Your task to perform on an android device: Search for the new lego star wars 2021 on Target Image 0: 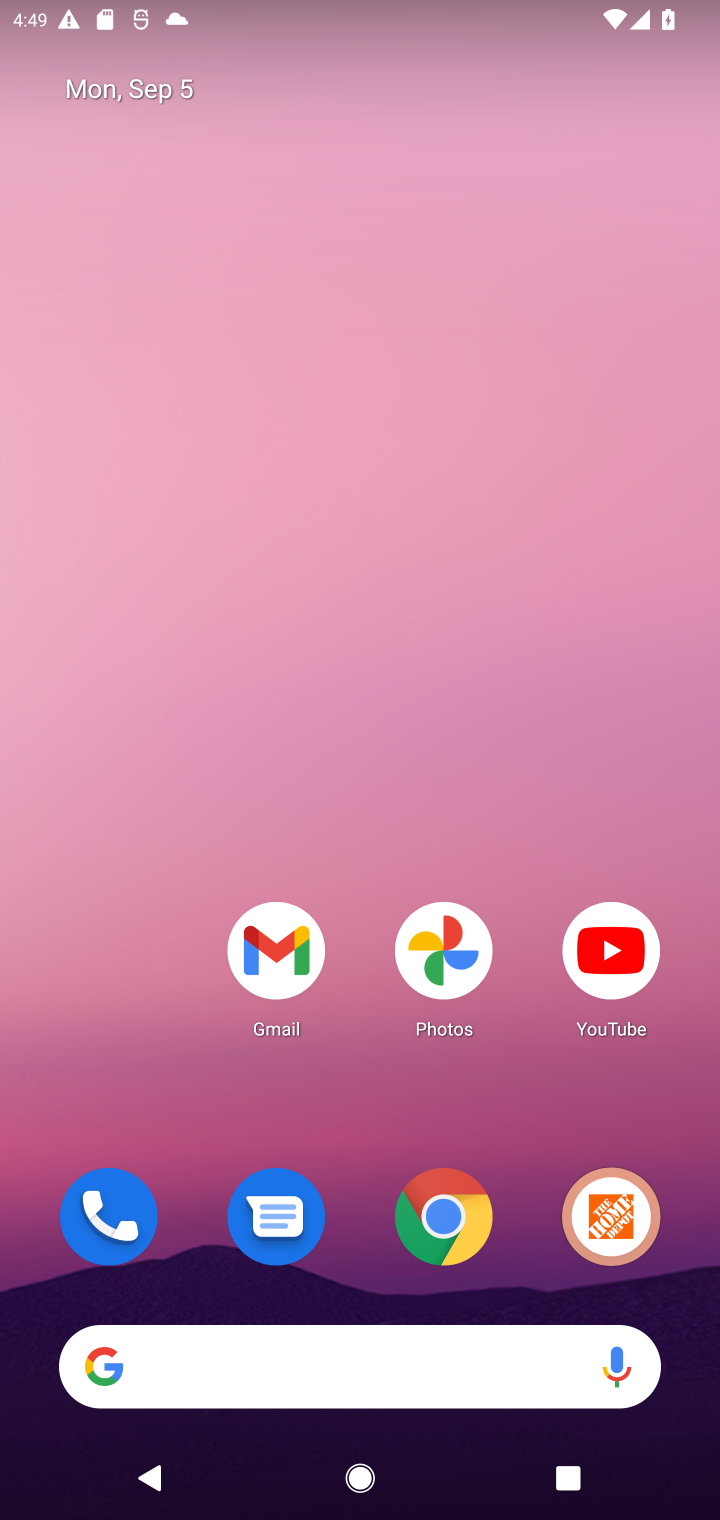
Step 0: click (110, 1358)
Your task to perform on an android device: Search for the new lego star wars 2021 on Target Image 1: 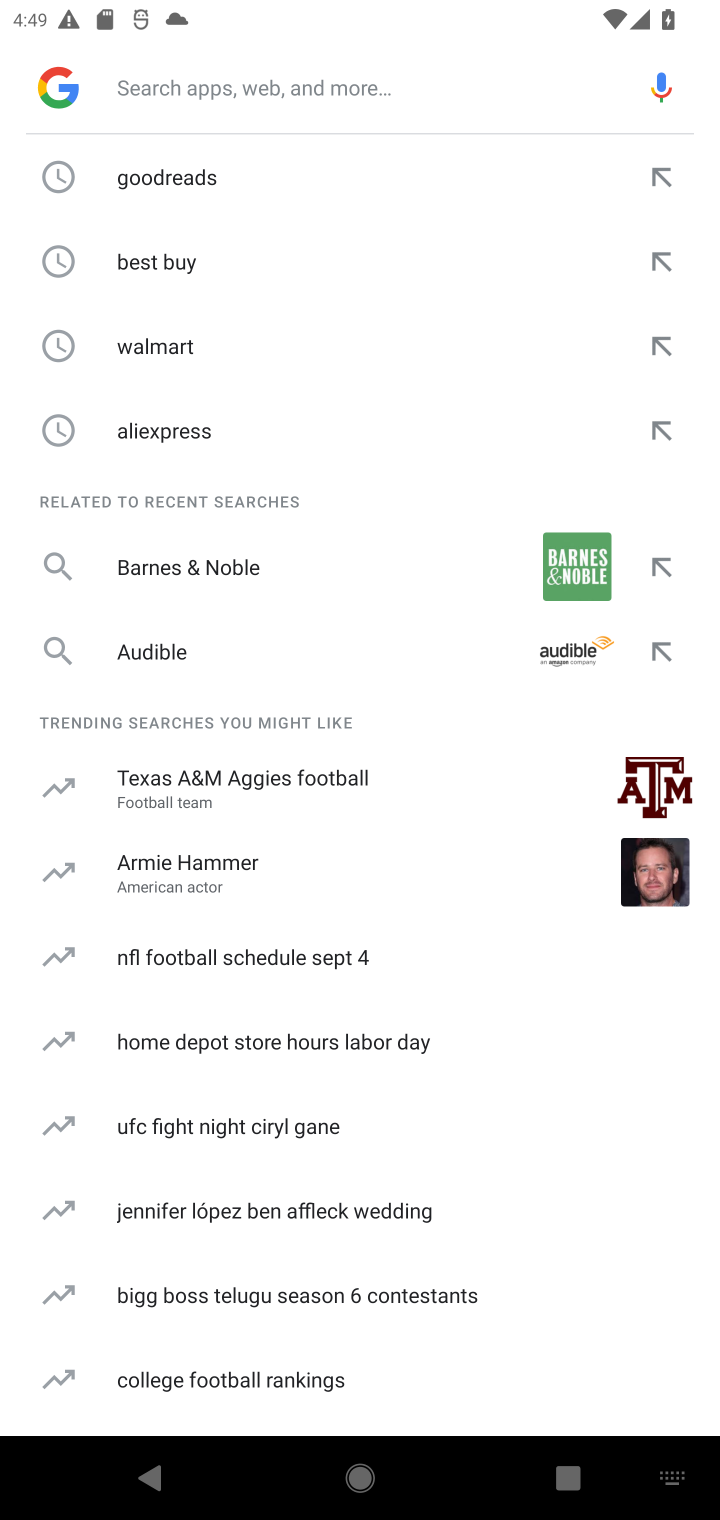
Step 1: click (378, 86)
Your task to perform on an android device: Search for the new lego star wars 2021 on Target Image 2: 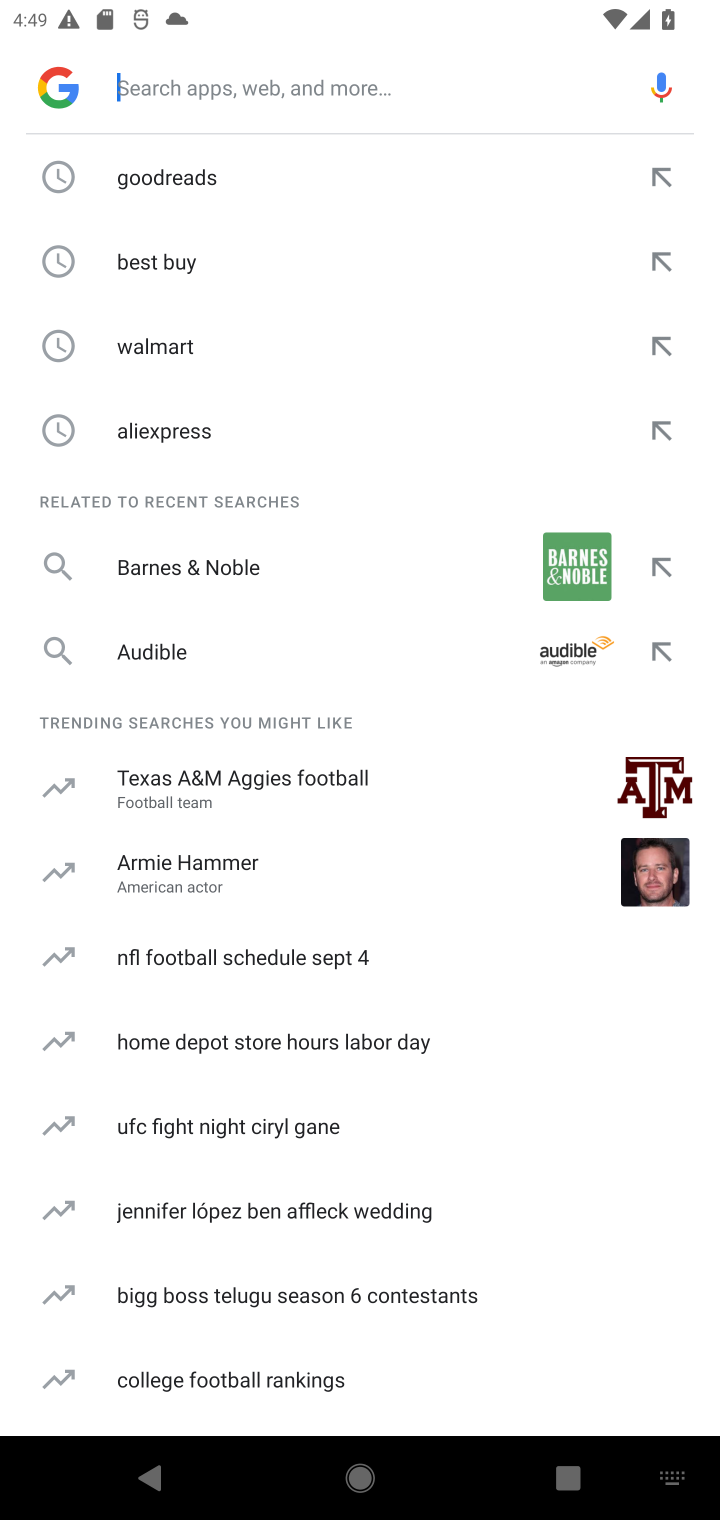
Step 2: type "Target"
Your task to perform on an android device: Search for the new lego star wars 2021 on Target Image 3: 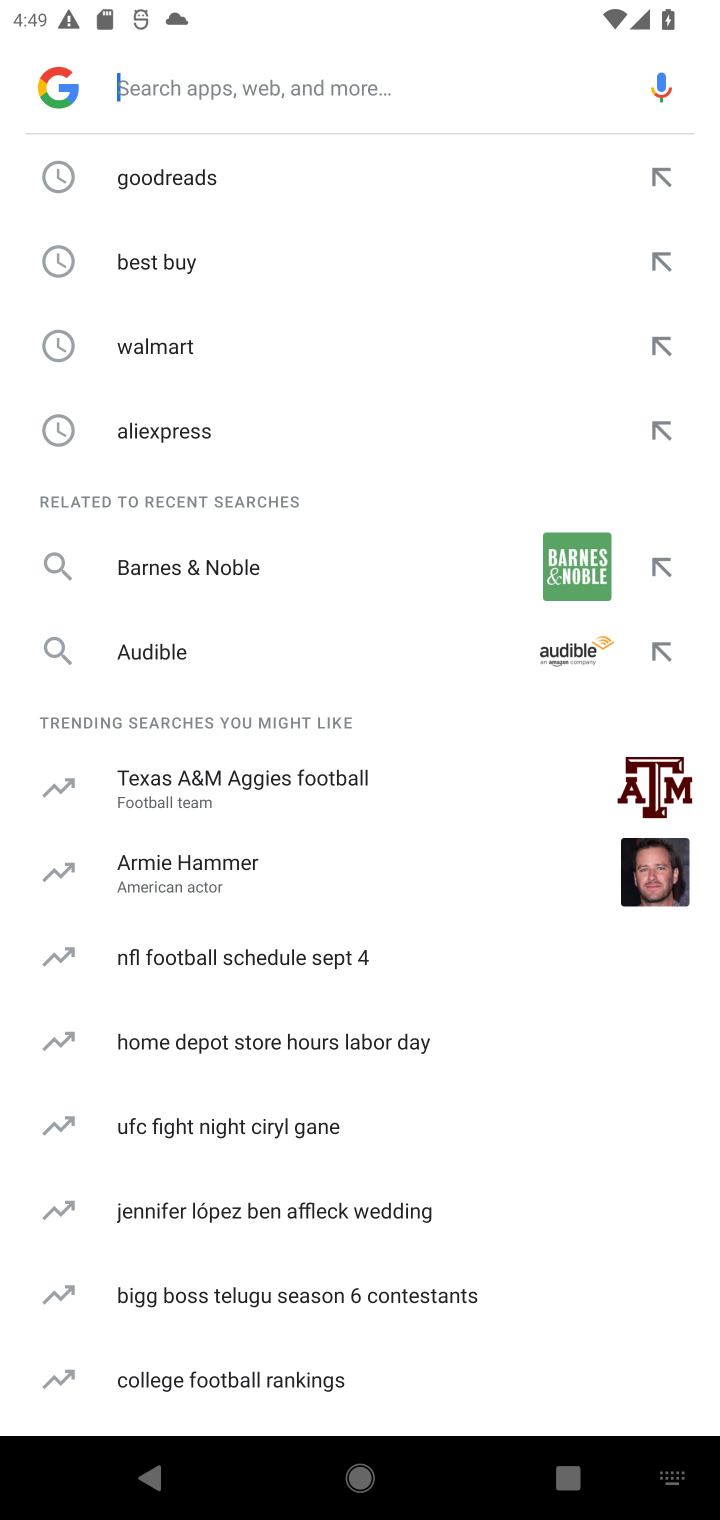
Step 3: click (298, 85)
Your task to perform on an android device: Search for the new lego star wars 2021 on Target Image 4: 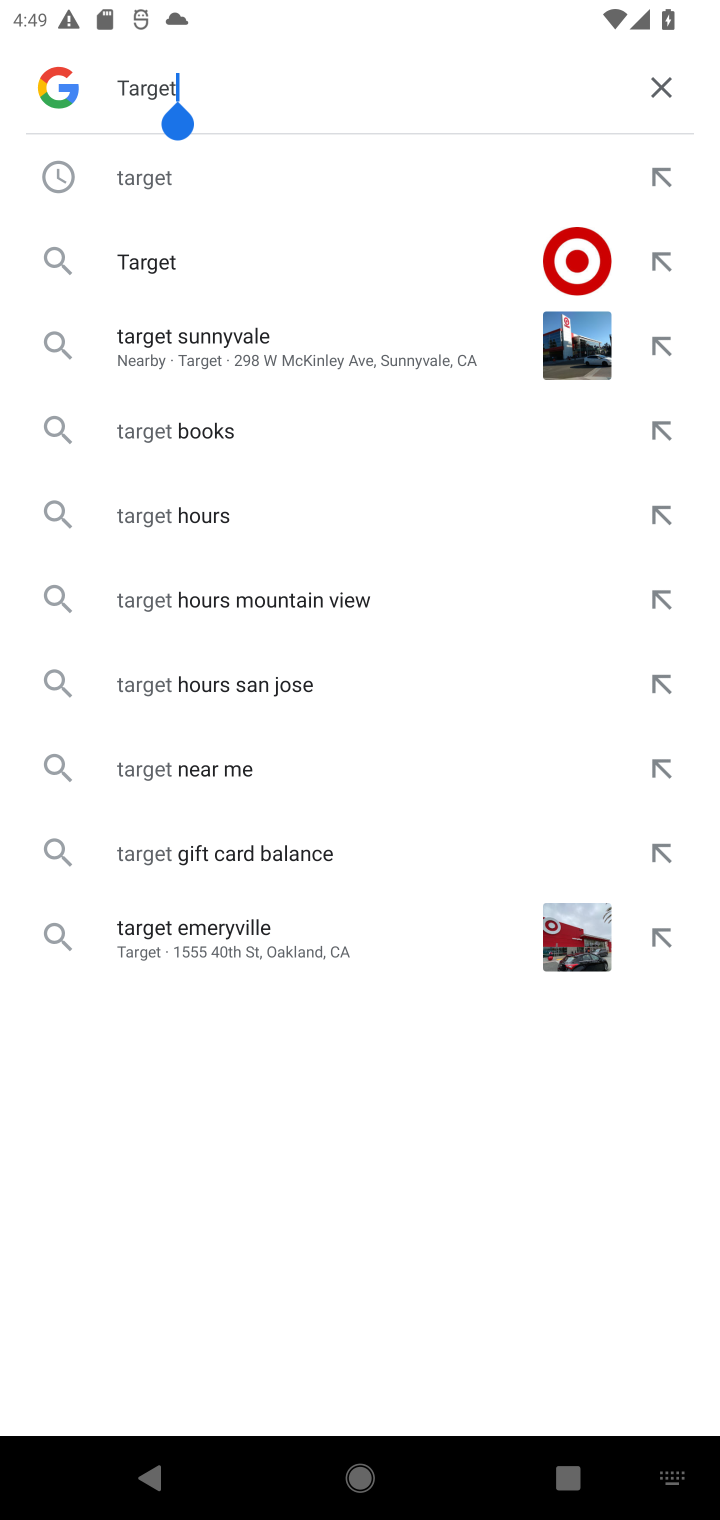
Step 4: press enter
Your task to perform on an android device: Search for the new lego star wars 2021 on Target Image 5: 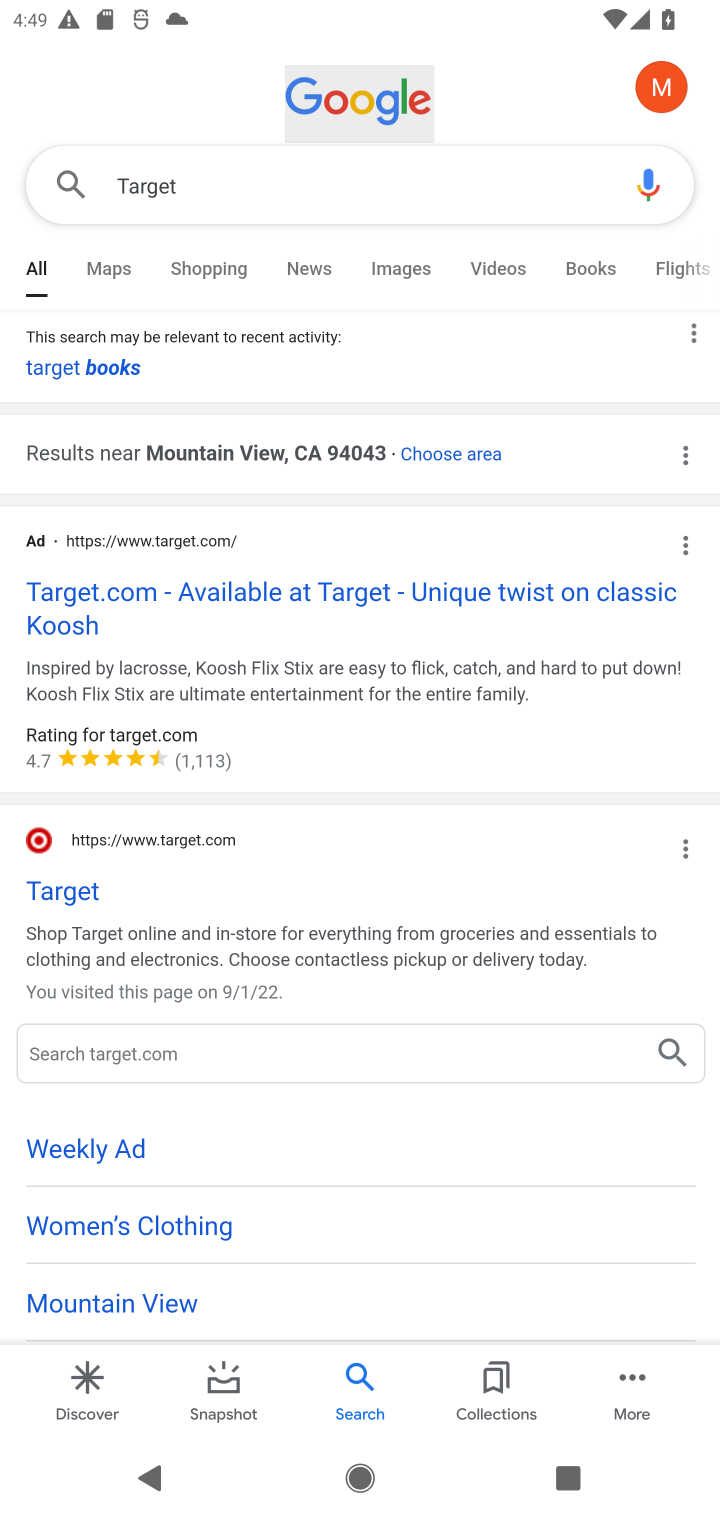
Step 5: click (71, 882)
Your task to perform on an android device: Search for the new lego star wars 2021 on Target Image 6: 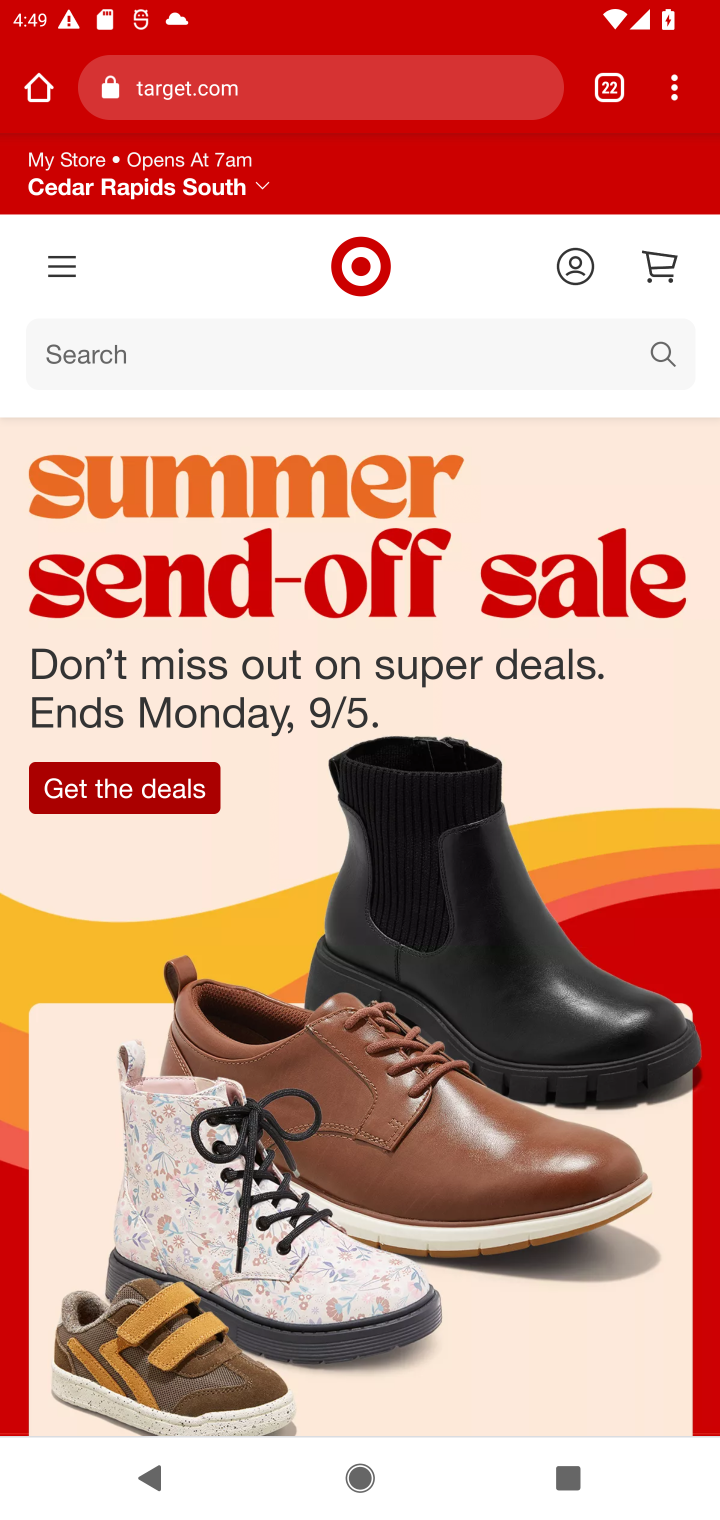
Step 6: click (169, 359)
Your task to perform on an android device: Search for the new lego star wars 2021 on Target Image 7: 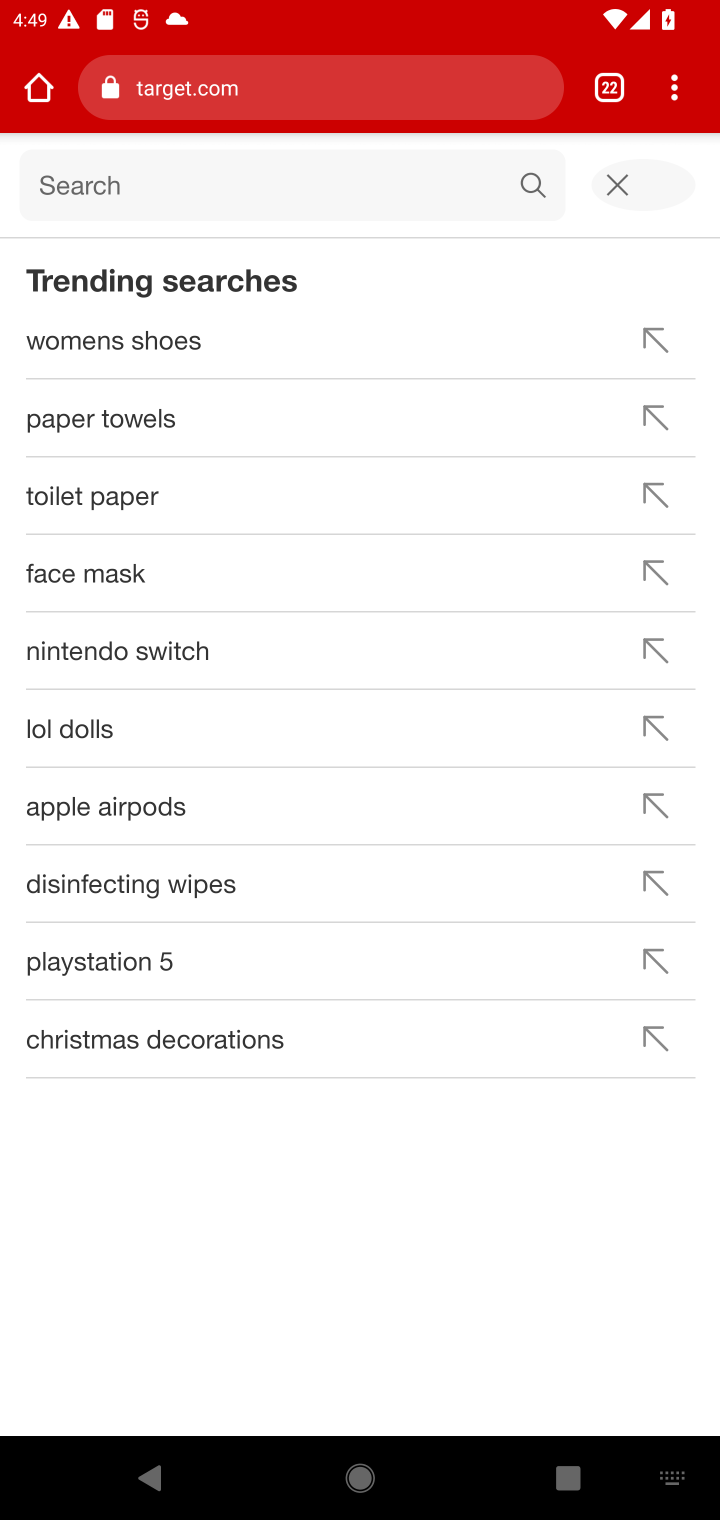
Step 7: type "new lego star wars 2021"
Your task to perform on an android device: Search for the new lego star wars 2021 on Target Image 8: 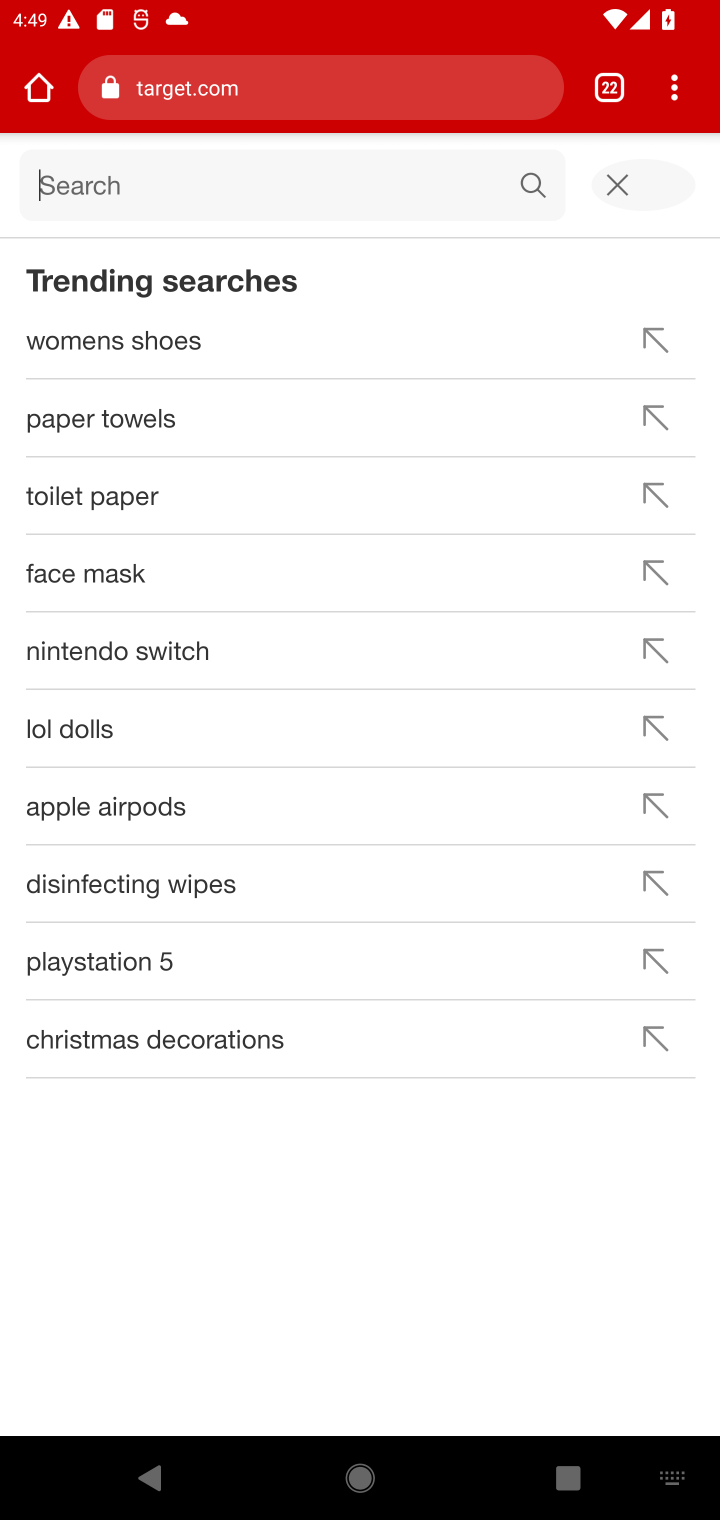
Step 8: click (131, 187)
Your task to perform on an android device: Search for the new lego star wars 2021 on Target Image 9: 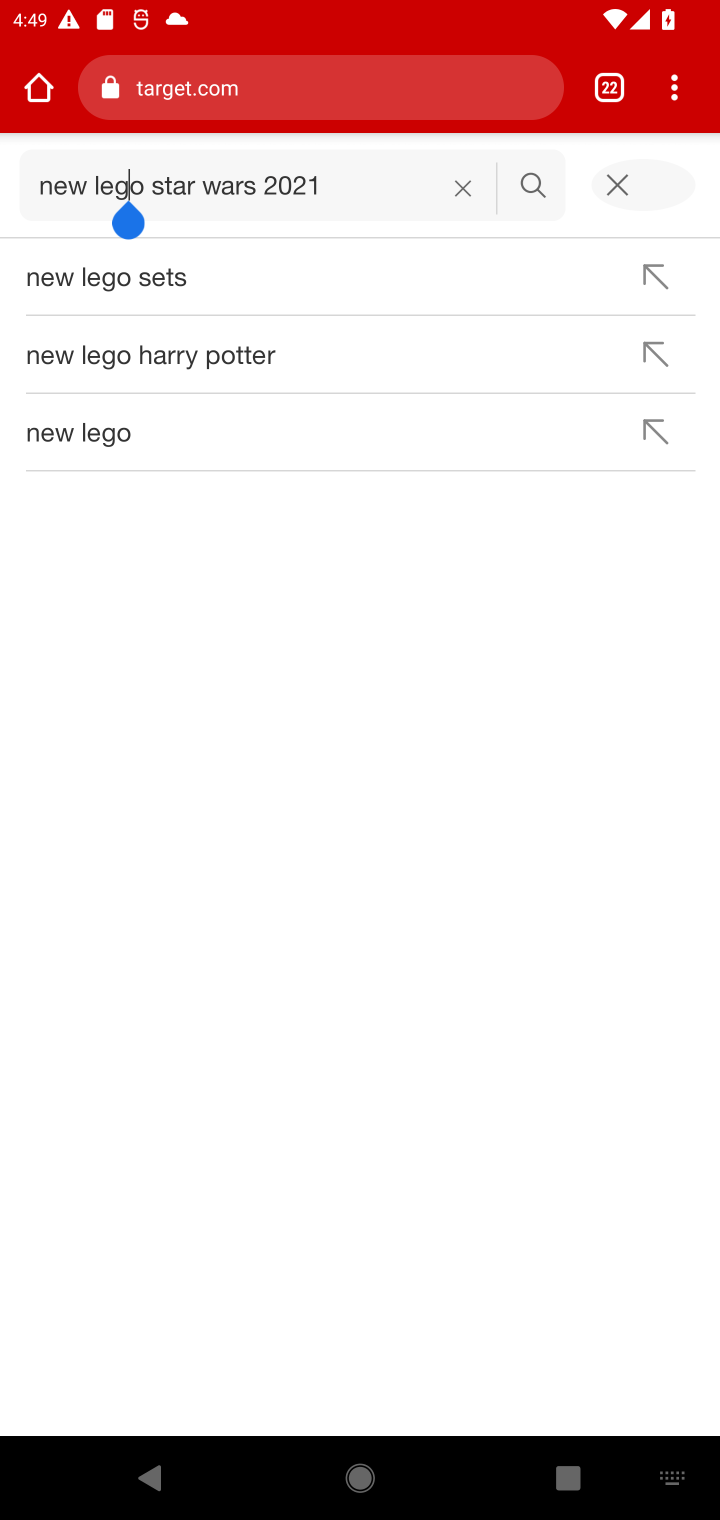
Step 9: press enter
Your task to perform on an android device: Search for the new lego star wars 2021 on Target Image 10: 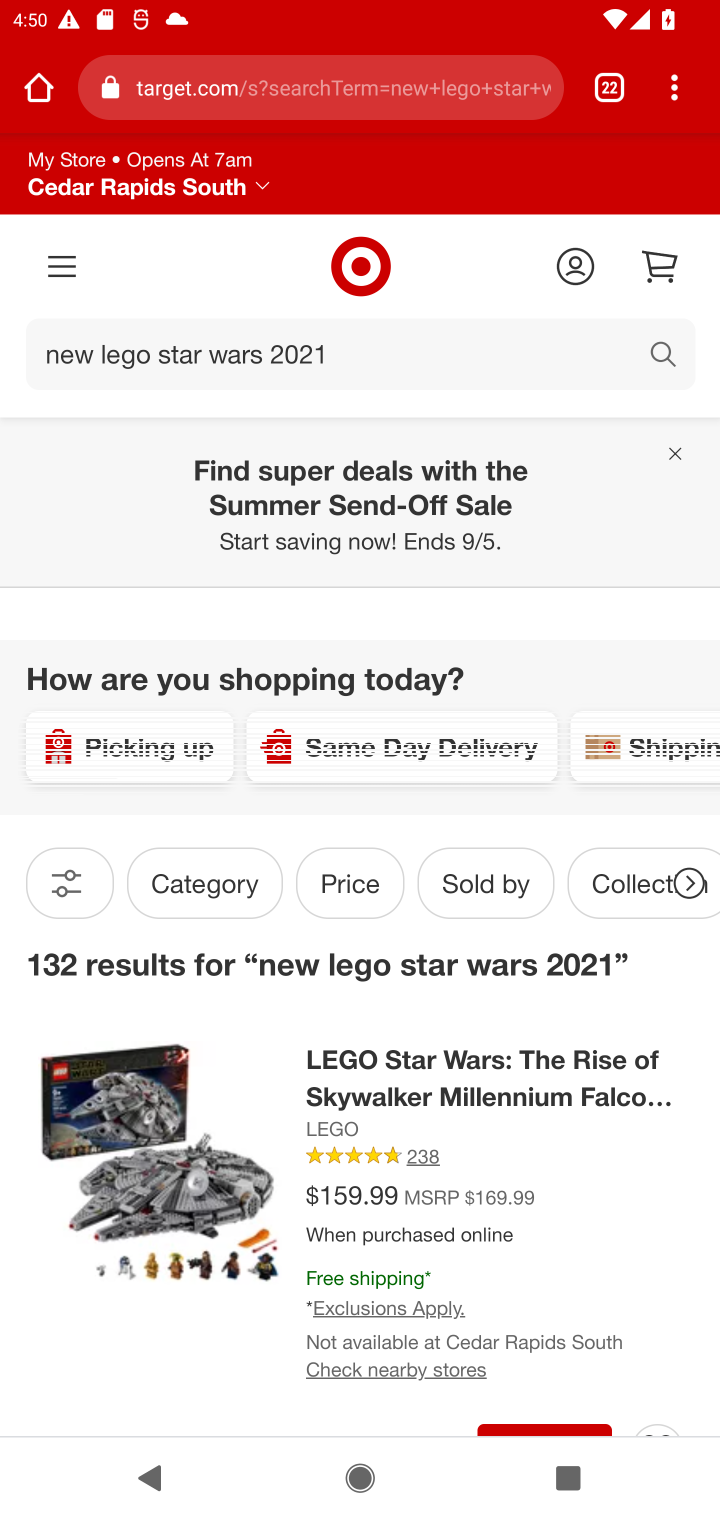
Step 10: task complete